Your task to perform on an android device: Show me the alarms in the clock app Image 0: 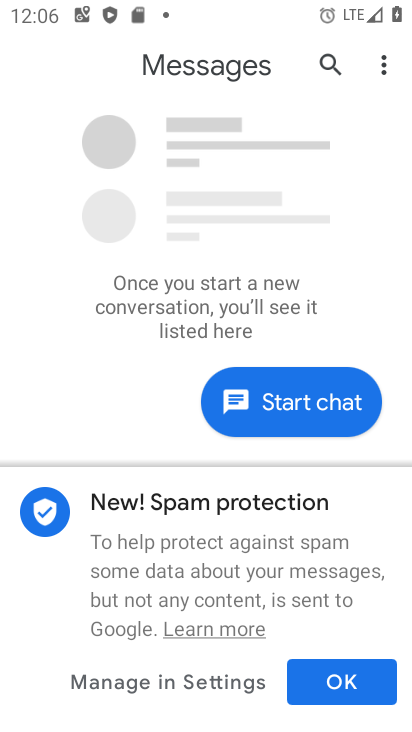
Step 0: press home button
Your task to perform on an android device: Show me the alarms in the clock app Image 1: 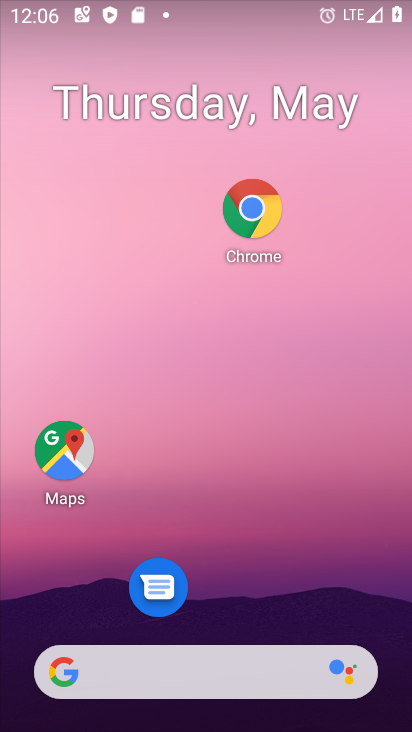
Step 1: drag from (214, 599) to (195, 140)
Your task to perform on an android device: Show me the alarms in the clock app Image 2: 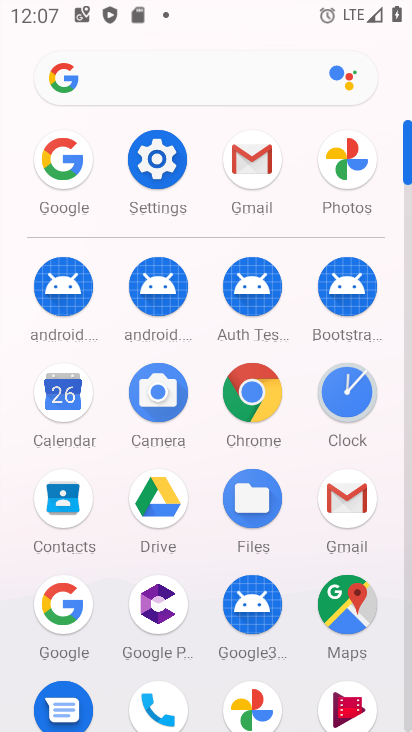
Step 2: click (352, 398)
Your task to perform on an android device: Show me the alarms in the clock app Image 3: 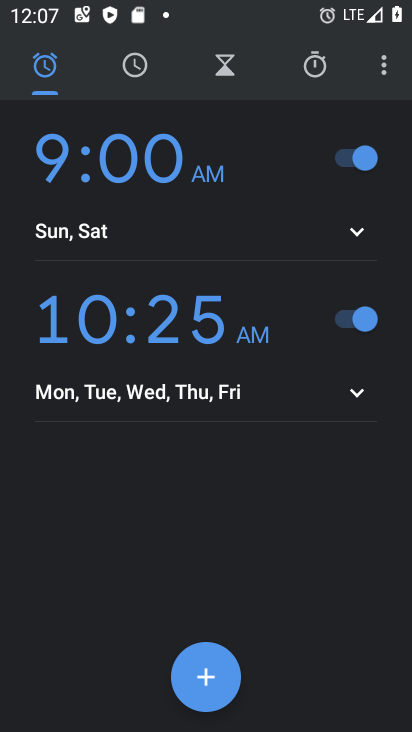
Step 3: task complete